Your task to perform on an android device: toggle data saver in the chrome app Image 0: 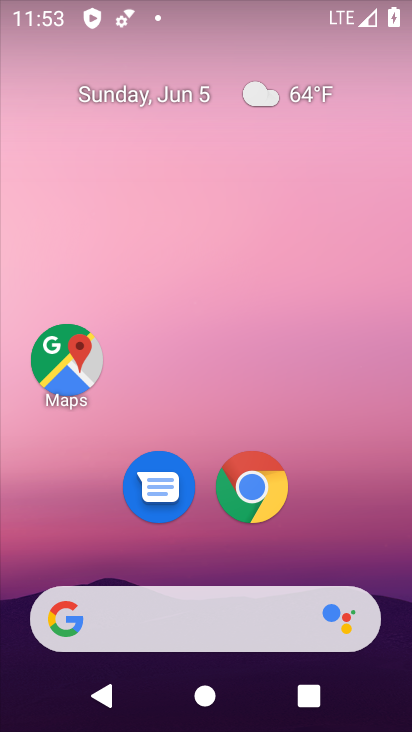
Step 0: drag from (360, 509) to (326, 168)
Your task to perform on an android device: toggle data saver in the chrome app Image 1: 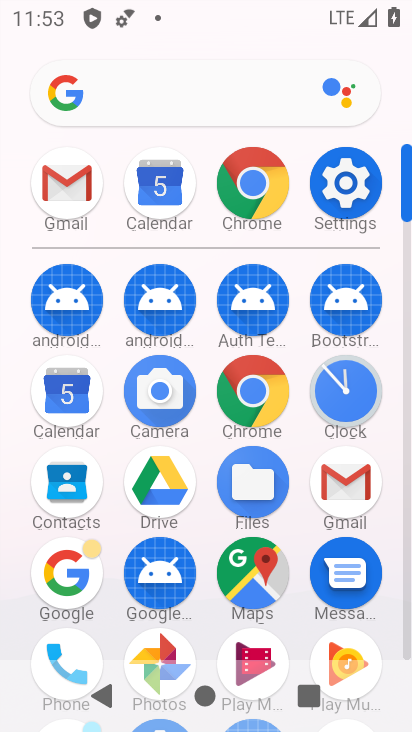
Step 1: drag from (300, 621) to (311, 304)
Your task to perform on an android device: toggle data saver in the chrome app Image 2: 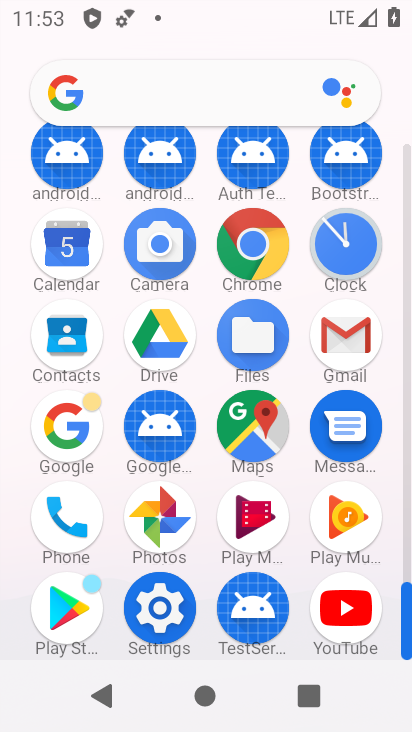
Step 2: click (264, 268)
Your task to perform on an android device: toggle data saver in the chrome app Image 3: 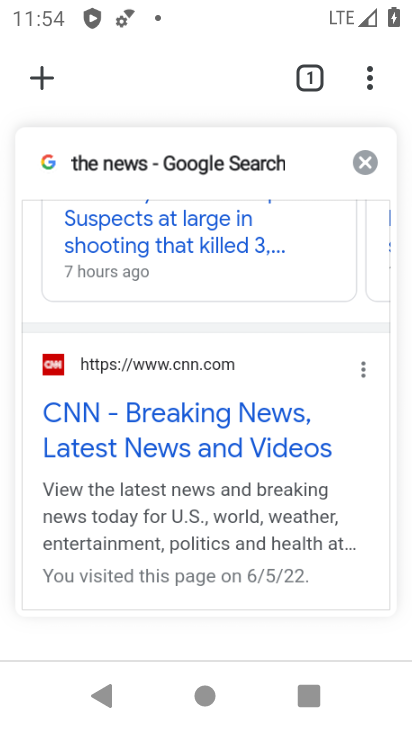
Step 3: drag from (374, 80) to (110, 305)
Your task to perform on an android device: toggle data saver in the chrome app Image 4: 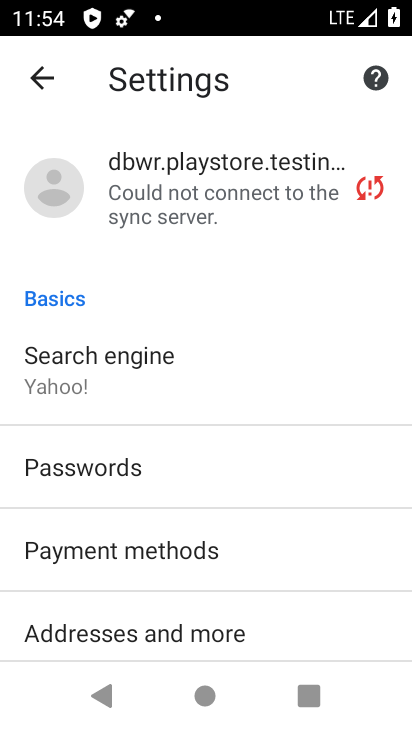
Step 4: drag from (248, 593) to (295, 284)
Your task to perform on an android device: toggle data saver in the chrome app Image 5: 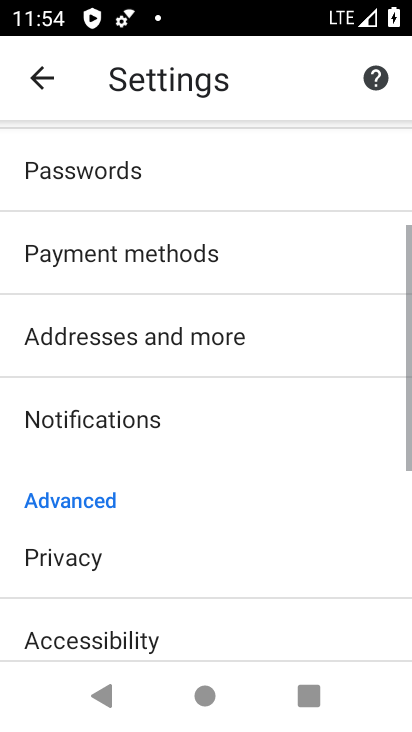
Step 5: drag from (231, 566) to (286, 211)
Your task to perform on an android device: toggle data saver in the chrome app Image 6: 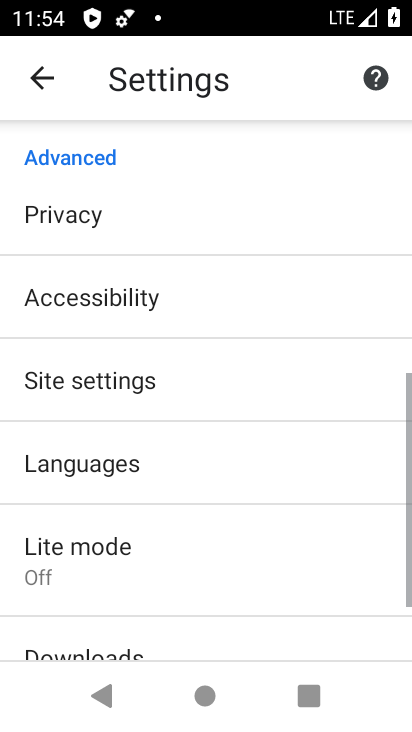
Step 6: drag from (216, 561) to (253, 284)
Your task to perform on an android device: toggle data saver in the chrome app Image 7: 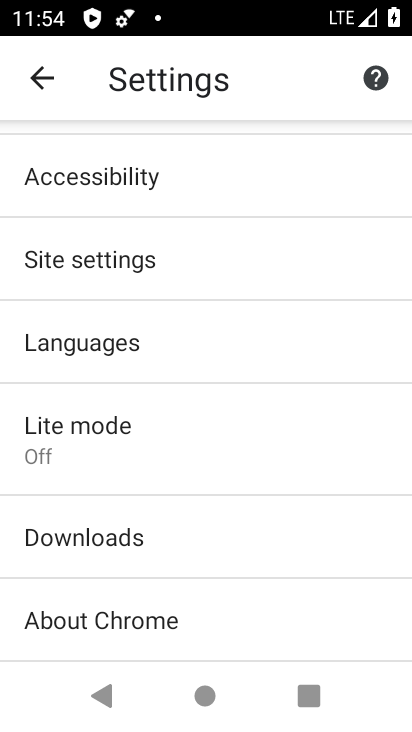
Step 7: click (141, 340)
Your task to perform on an android device: toggle data saver in the chrome app Image 8: 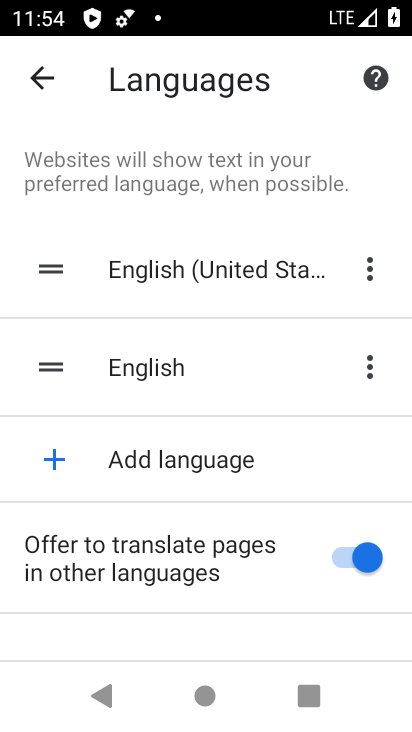
Step 8: click (34, 83)
Your task to perform on an android device: toggle data saver in the chrome app Image 9: 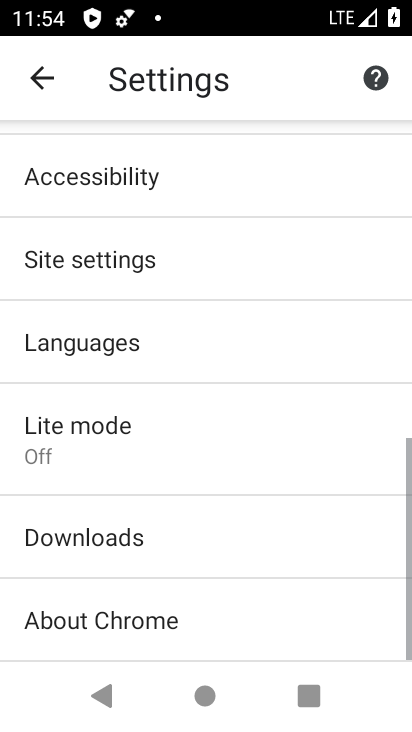
Step 9: click (173, 443)
Your task to perform on an android device: toggle data saver in the chrome app Image 10: 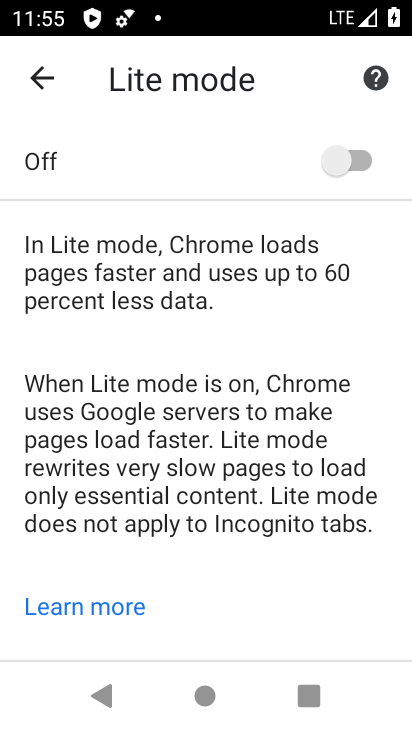
Step 10: click (372, 162)
Your task to perform on an android device: toggle data saver in the chrome app Image 11: 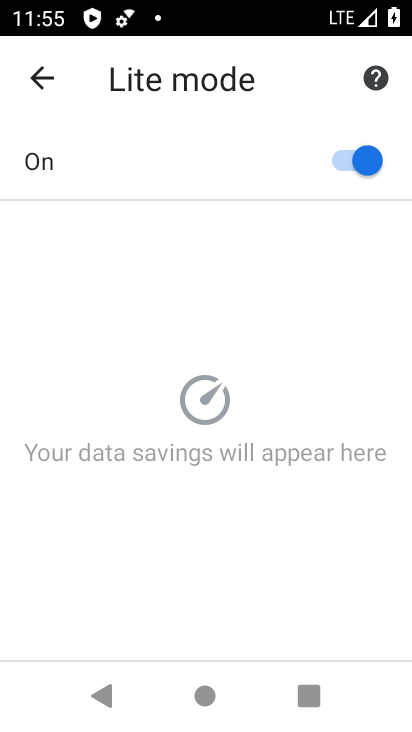
Step 11: task complete